Your task to perform on an android device: toggle notifications settings in the gmail app Image 0: 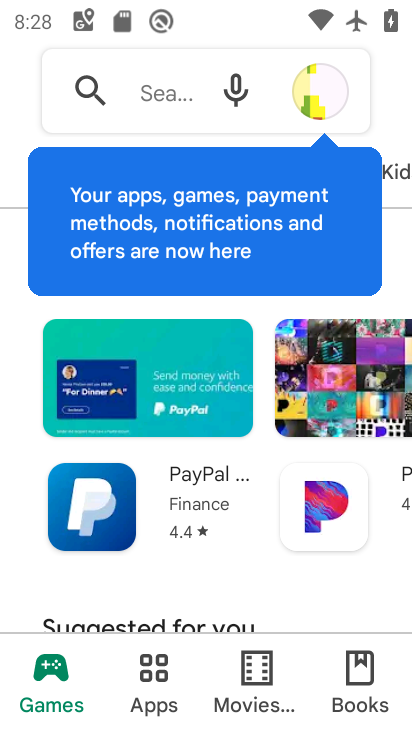
Step 0: drag from (216, 400) to (261, 198)
Your task to perform on an android device: toggle notifications settings in the gmail app Image 1: 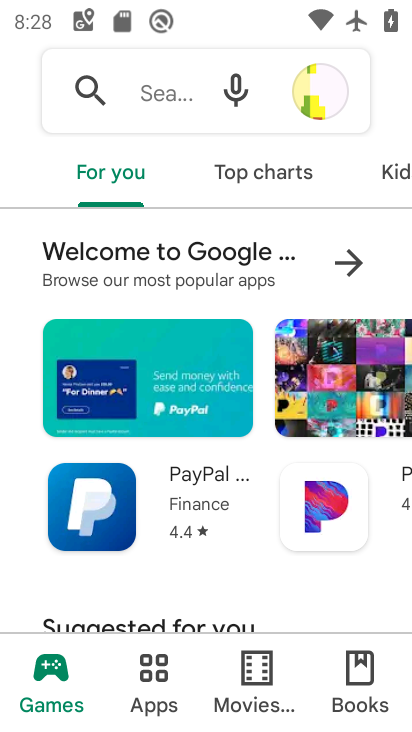
Step 1: press home button
Your task to perform on an android device: toggle notifications settings in the gmail app Image 2: 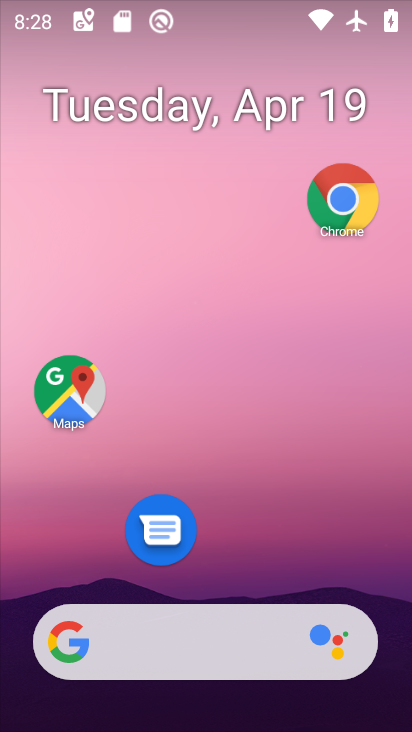
Step 2: drag from (215, 555) to (243, 41)
Your task to perform on an android device: toggle notifications settings in the gmail app Image 3: 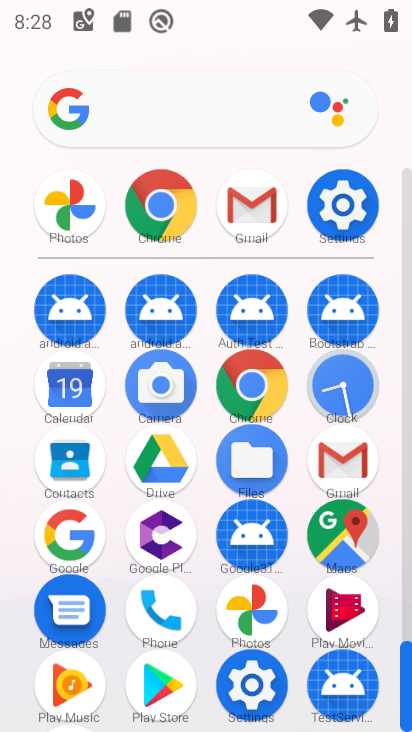
Step 3: drag from (202, 648) to (146, 207)
Your task to perform on an android device: toggle notifications settings in the gmail app Image 4: 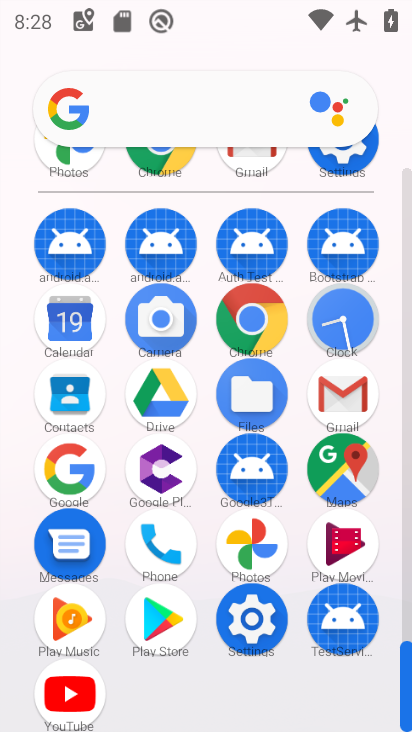
Step 4: click (352, 405)
Your task to perform on an android device: toggle notifications settings in the gmail app Image 5: 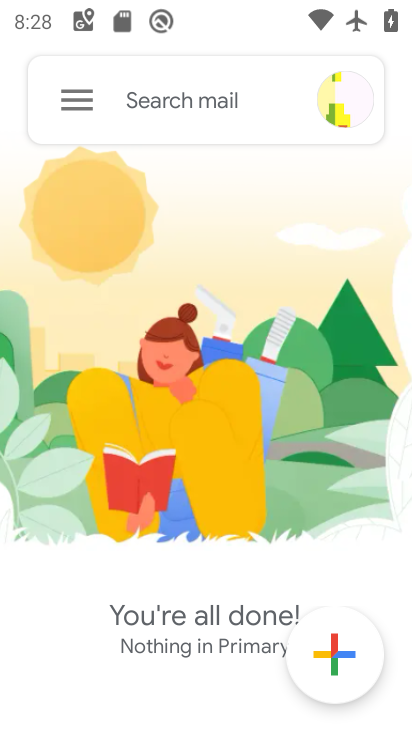
Step 5: click (71, 107)
Your task to perform on an android device: toggle notifications settings in the gmail app Image 6: 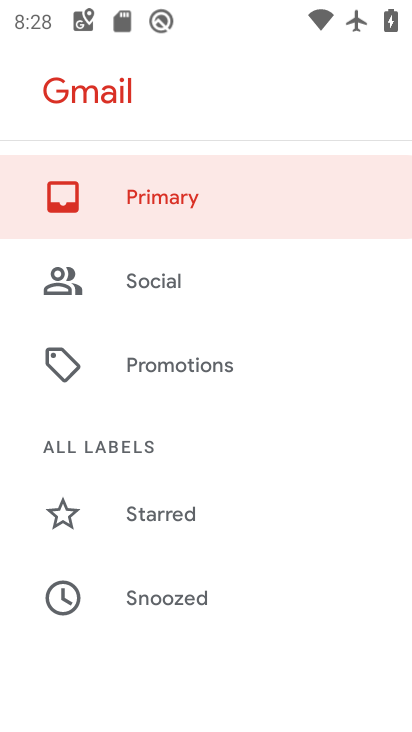
Step 6: drag from (181, 553) to (276, 95)
Your task to perform on an android device: toggle notifications settings in the gmail app Image 7: 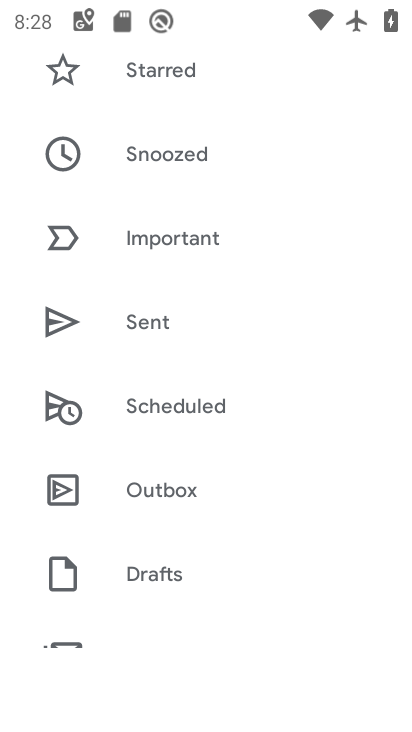
Step 7: drag from (155, 623) to (401, 67)
Your task to perform on an android device: toggle notifications settings in the gmail app Image 8: 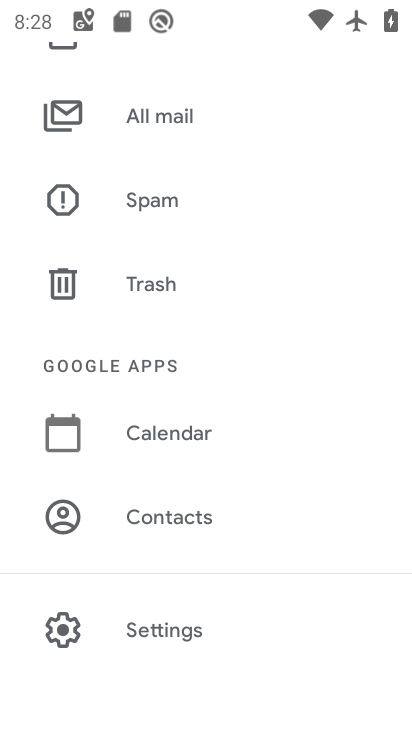
Step 8: drag from (185, 561) to (310, 129)
Your task to perform on an android device: toggle notifications settings in the gmail app Image 9: 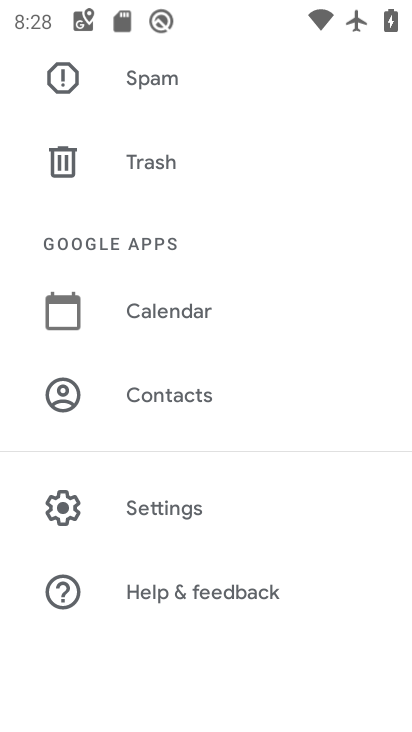
Step 9: click (237, 497)
Your task to perform on an android device: toggle notifications settings in the gmail app Image 10: 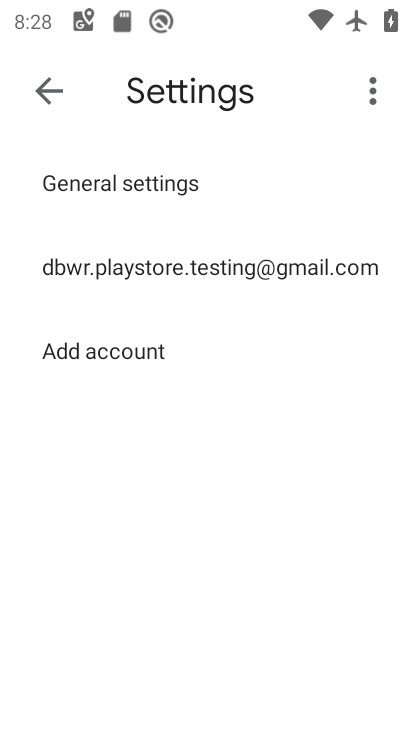
Step 10: click (200, 275)
Your task to perform on an android device: toggle notifications settings in the gmail app Image 11: 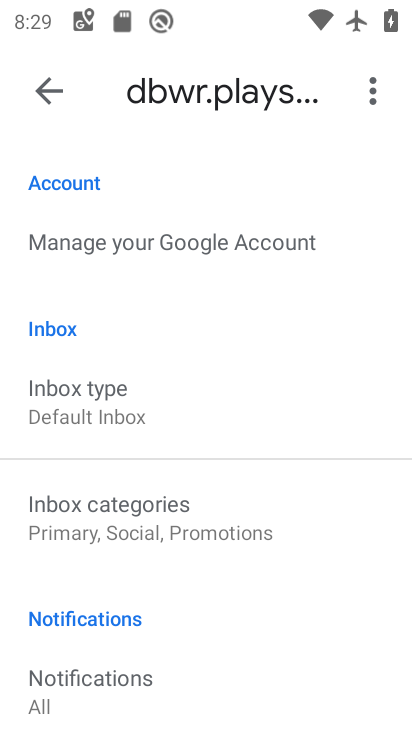
Step 11: drag from (130, 569) to (213, 324)
Your task to perform on an android device: toggle notifications settings in the gmail app Image 12: 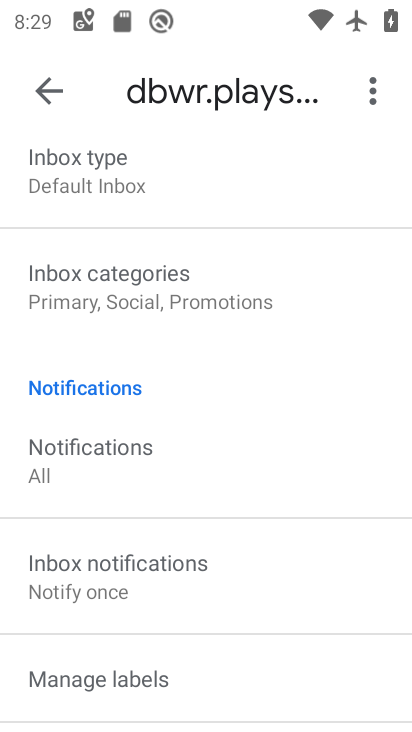
Step 12: drag from (218, 337) to (283, 197)
Your task to perform on an android device: toggle notifications settings in the gmail app Image 13: 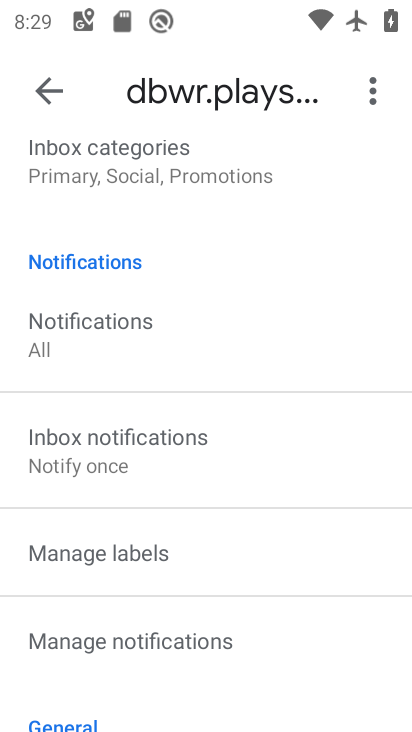
Step 13: click (144, 657)
Your task to perform on an android device: toggle notifications settings in the gmail app Image 14: 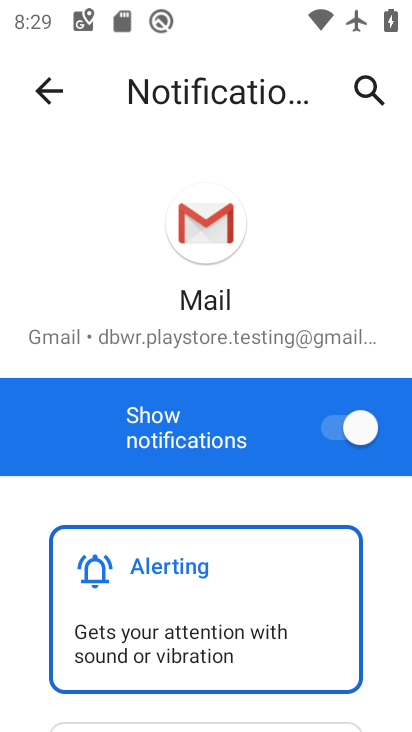
Step 14: click (340, 426)
Your task to perform on an android device: toggle notifications settings in the gmail app Image 15: 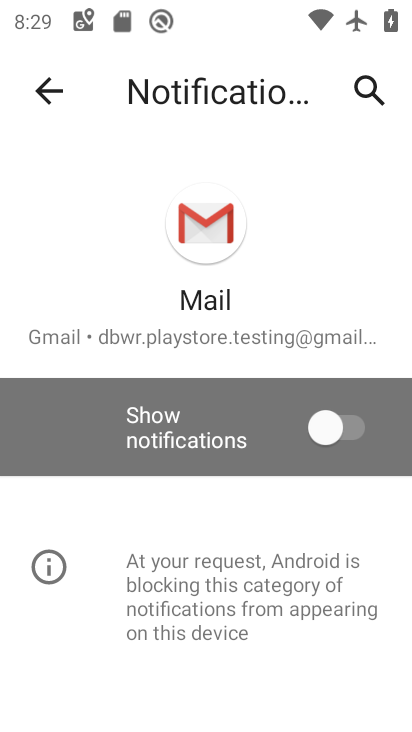
Step 15: task complete